Your task to perform on an android device: Go to Google Image 0: 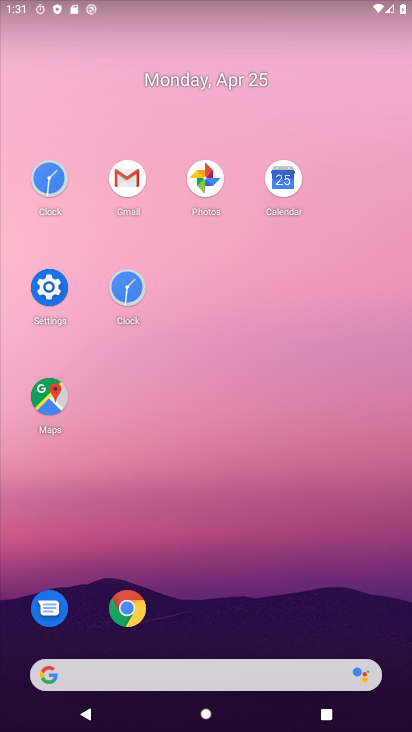
Step 0: drag from (251, 585) to (247, 74)
Your task to perform on an android device: Go to Google Image 1: 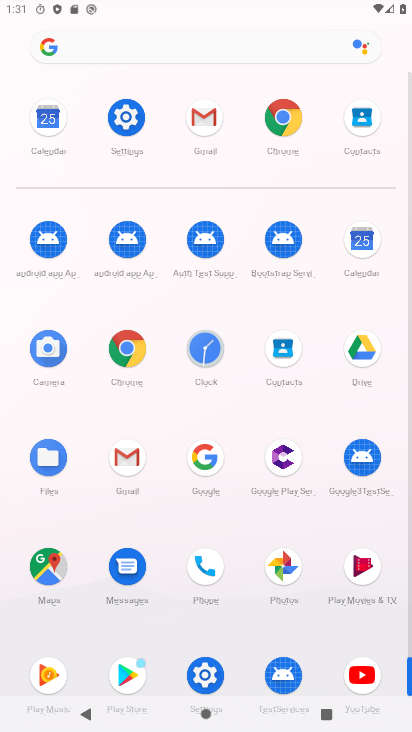
Step 1: drag from (206, 455) to (146, 286)
Your task to perform on an android device: Go to Google Image 2: 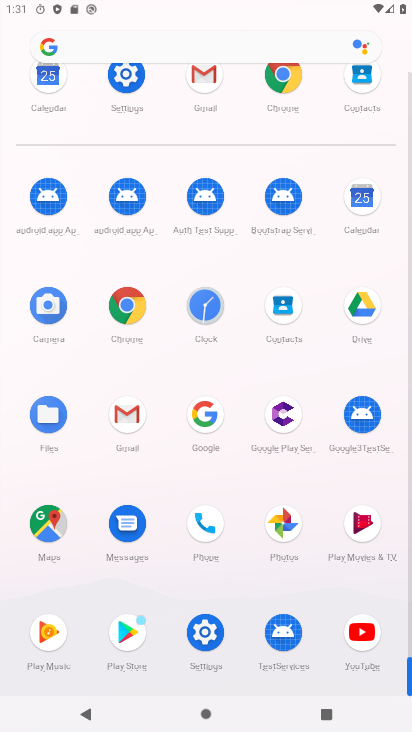
Step 2: drag from (200, 411) to (175, 309)
Your task to perform on an android device: Go to Google Image 3: 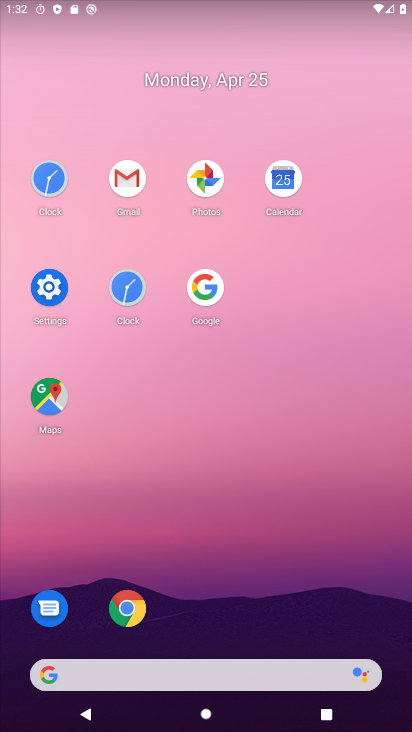
Step 3: click (209, 293)
Your task to perform on an android device: Go to Google Image 4: 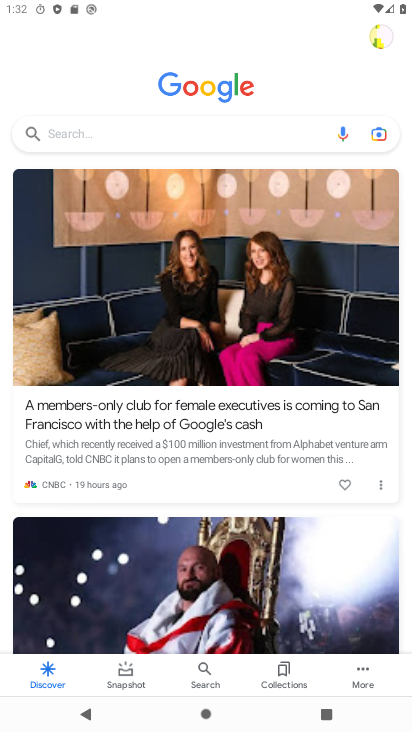
Step 4: task complete